Your task to perform on an android device: What's the US dollar exchange rate against the Canadian Dollar? Image 0: 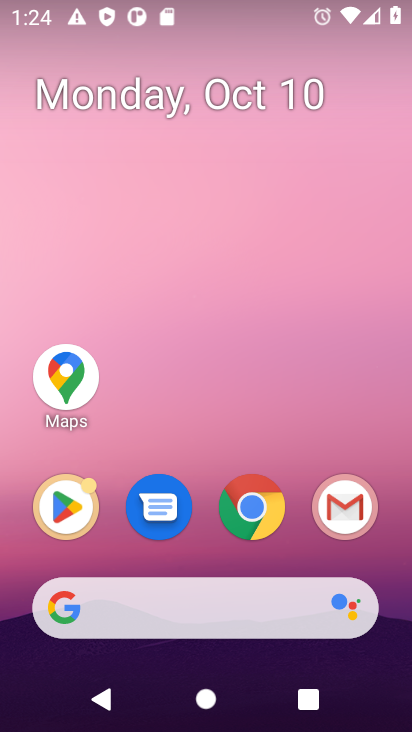
Step 0: press home button
Your task to perform on an android device: What's the US dollar exchange rate against the Canadian Dollar? Image 1: 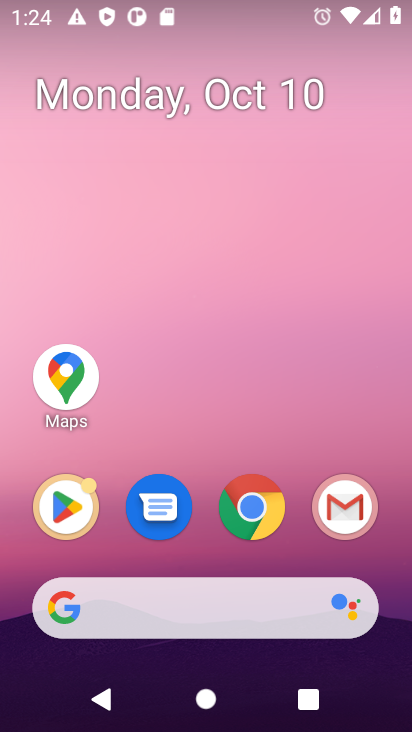
Step 1: click (210, 600)
Your task to perform on an android device: What's the US dollar exchange rate against the Canadian Dollar? Image 2: 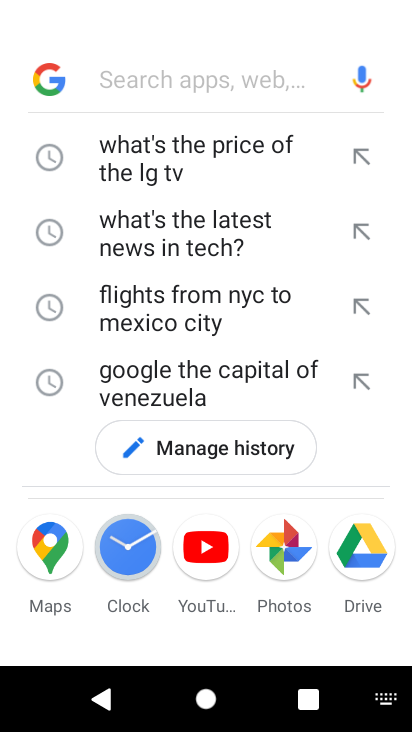
Step 2: type " US dollar exchange rate against the Canadian Dollar"
Your task to perform on an android device: What's the US dollar exchange rate against the Canadian Dollar? Image 3: 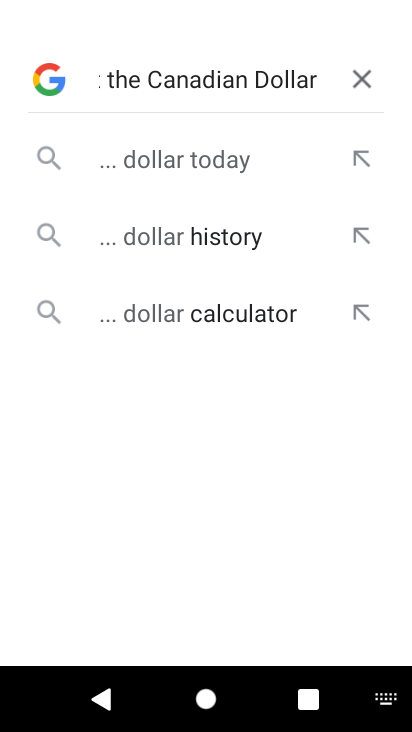
Step 3: press enter
Your task to perform on an android device: What's the US dollar exchange rate against the Canadian Dollar? Image 4: 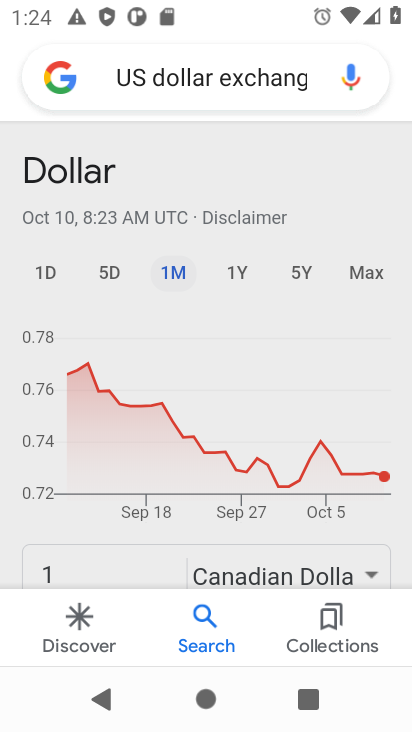
Step 4: task complete